Your task to perform on an android device: Open accessibility settings Image 0: 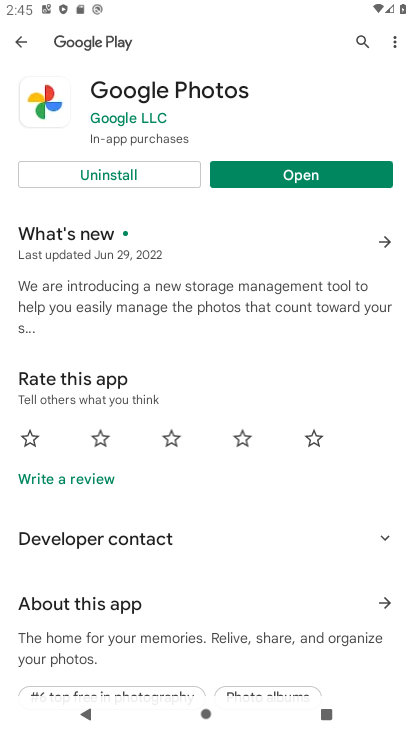
Step 0: press home button
Your task to perform on an android device: Open accessibility settings Image 1: 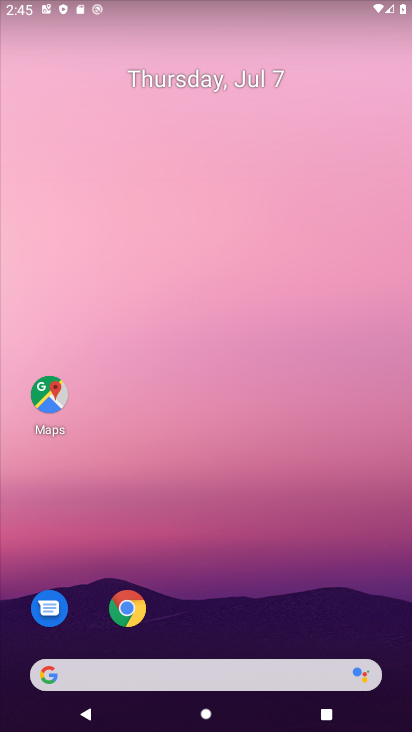
Step 1: drag from (389, 629) to (345, 56)
Your task to perform on an android device: Open accessibility settings Image 2: 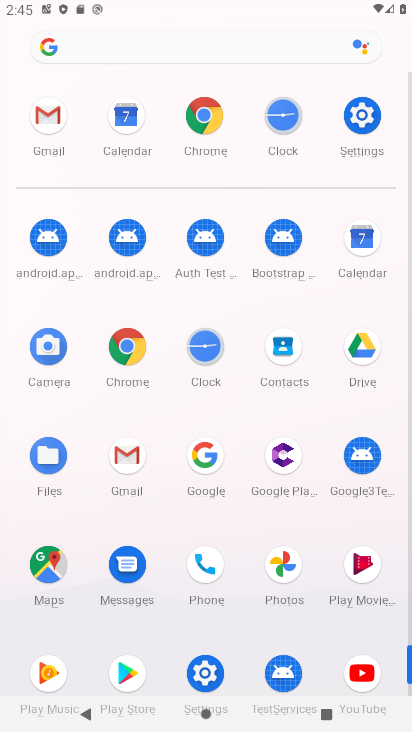
Step 2: click (205, 675)
Your task to perform on an android device: Open accessibility settings Image 3: 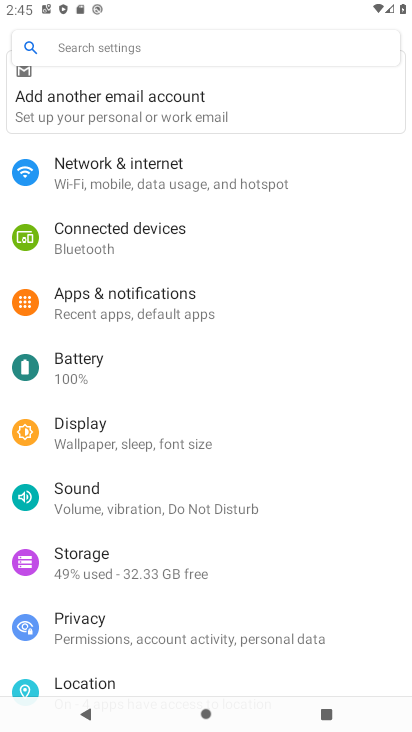
Step 3: drag from (343, 581) to (343, 233)
Your task to perform on an android device: Open accessibility settings Image 4: 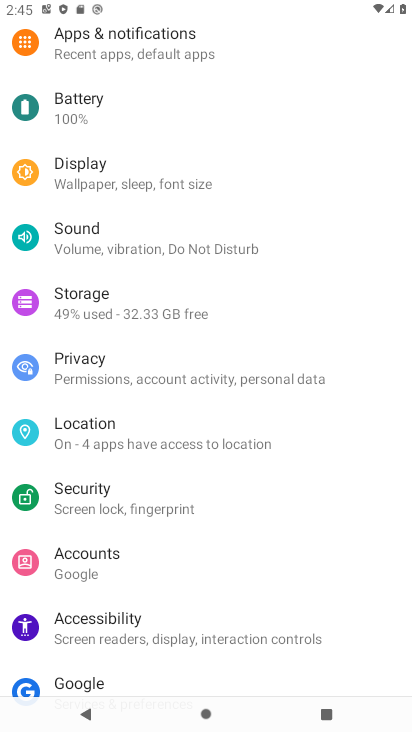
Step 4: click (95, 618)
Your task to perform on an android device: Open accessibility settings Image 5: 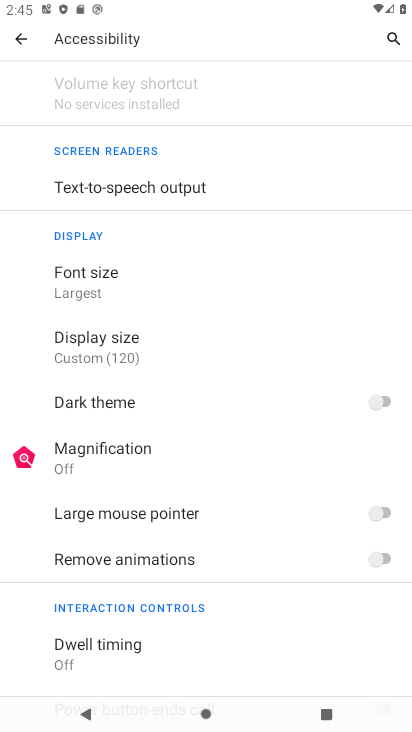
Step 5: task complete